Your task to perform on an android device: Open CNN.com Image 0: 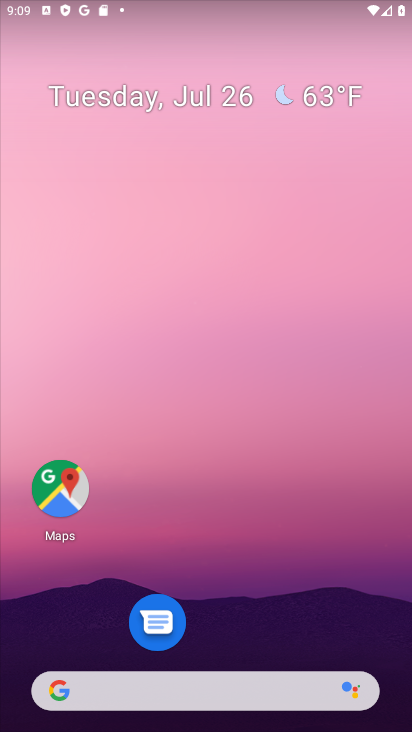
Step 0: drag from (289, 602) to (291, 82)
Your task to perform on an android device: Open CNN.com Image 1: 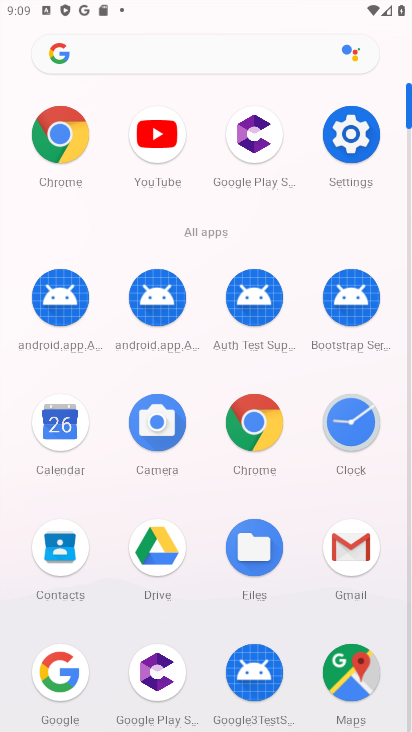
Step 1: click (71, 134)
Your task to perform on an android device: Open CNN.com Image 2: 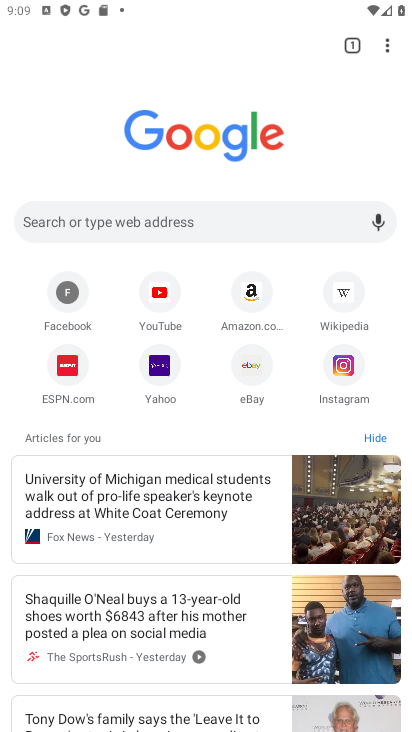
Step 2: click (185, 228)
Your task to perform on an android device: Open CNN.com Image 3: 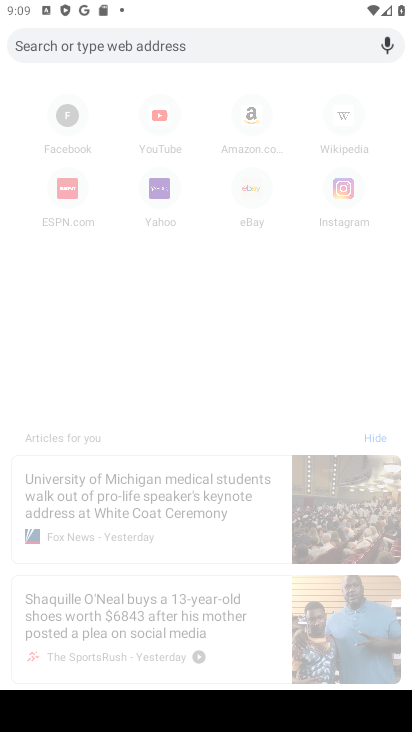
Step 3: type "CNN.com"
Your task to perform on an android device: Open CNN.com Image 4: 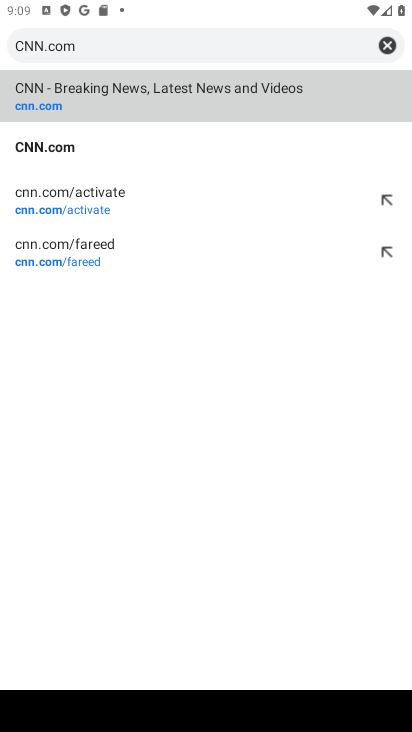
Step 4: click (50, 146)
Your task to perform on an android device: Open CNN.com Image 5: 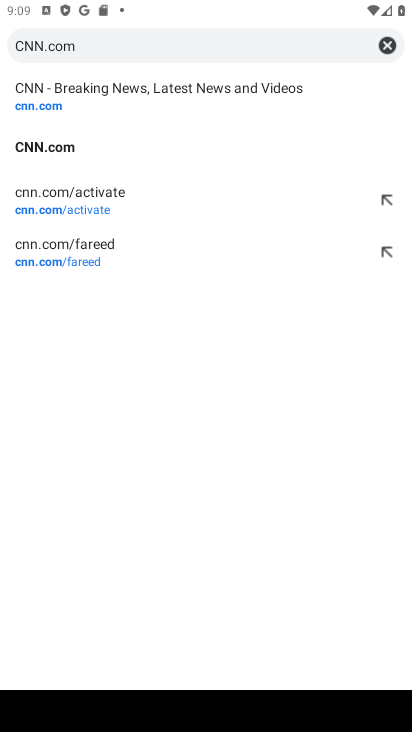
Step 5: click (69, 140)
Your task to perform on an android device: Open CNN.com Image 6: 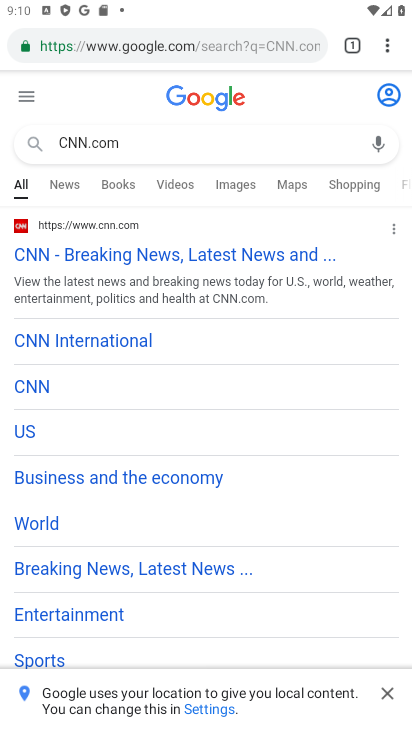
Step 6: click (139, 252)
Your task to perform on an android device: Open CNN.com Image 7: 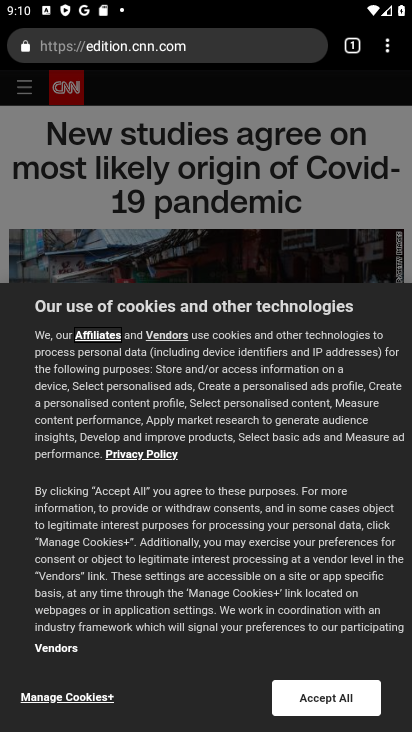
Step 7: task complete